Your task to perform on an android device: read, delete, or share a saved page in the chrome app Image 0: 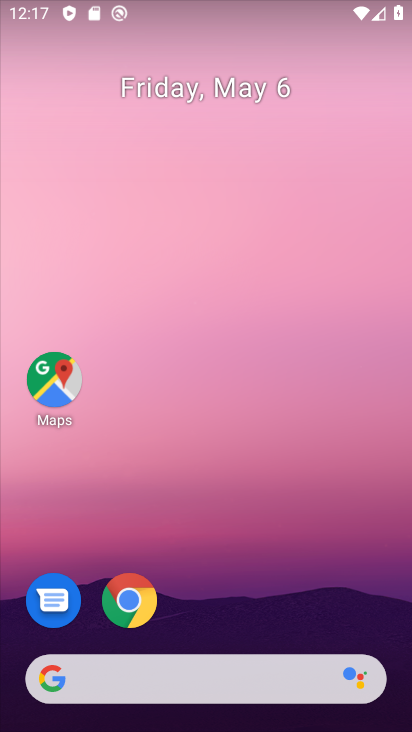
Step 0: click (139, 614)
Your task to perform on an android device: read, delete, or share a saved page in the chrome app Image 1: 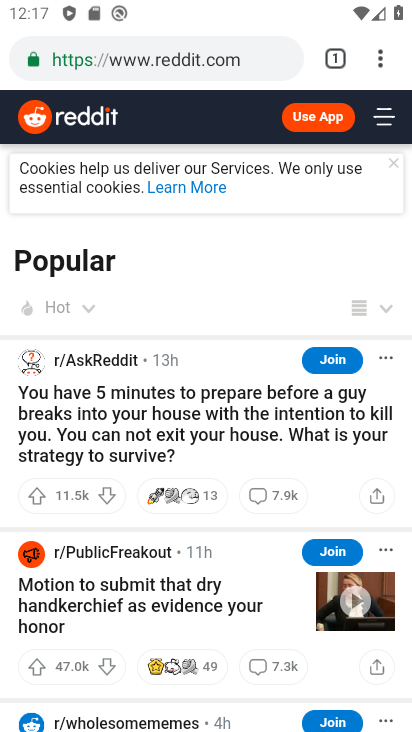
Step 1: drag from (377, 63) to (275, 386)
Your task to perform on an android device: read, delete, or share a saved page in the chrome app Image 2: 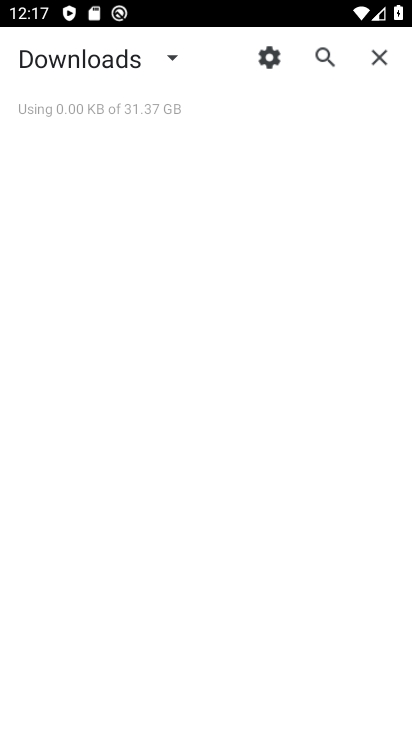
Step 2: click (133, 73)
Your task to perform on an android device: read, delete, or share a saved page in the chrome app Image 3: 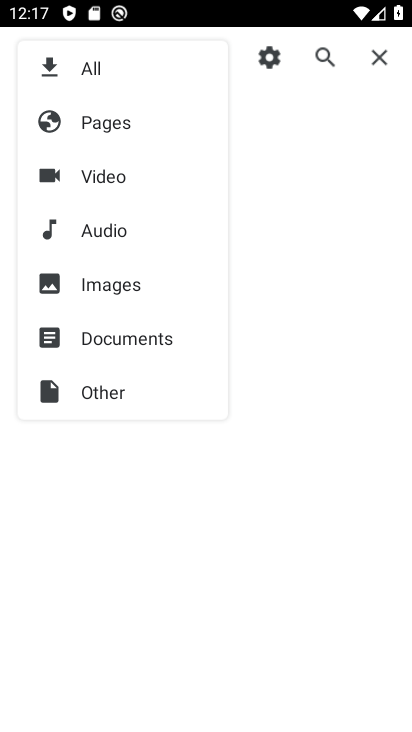
Step 3: click (118, 133)
Your task to perform on an android device: read, delete, or share a saved page in the chrome app Image 4: 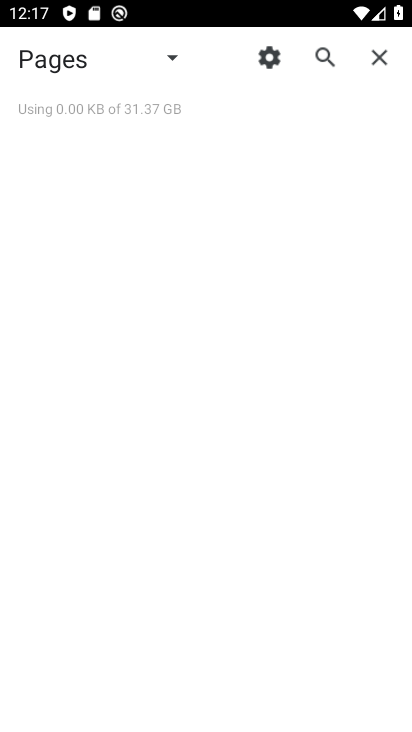
Step 4: task complete